Your task to perform on an android device: toggle notification dots Image 0: 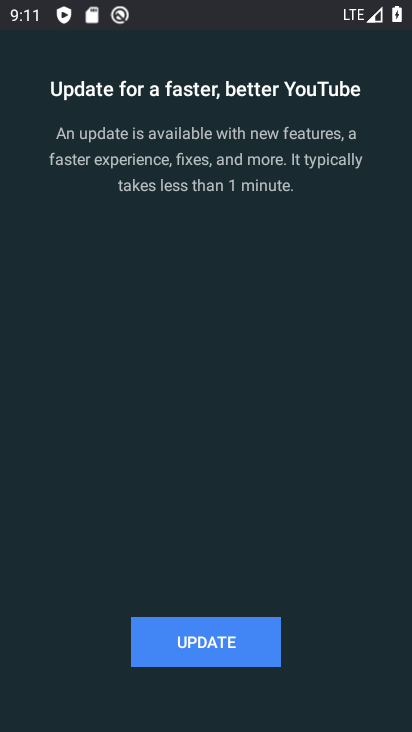
Step 0: press home button
Your task to perform on an android device: toggle notification dots Image 1: 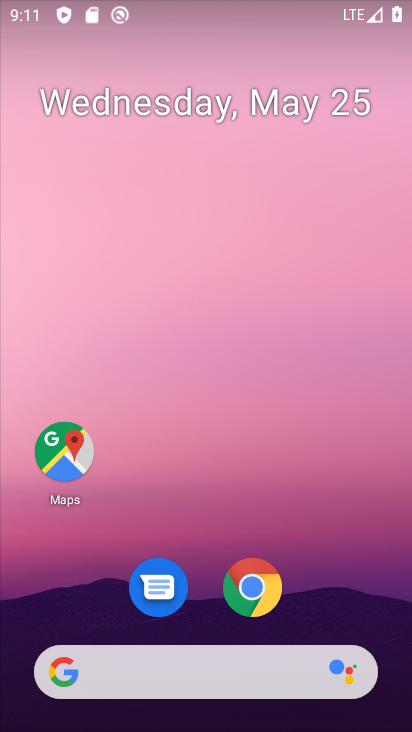
Step 1: drag from (192, 615) to (242, 254)
Your task to perform on an android device: toggle notification dots Image 2: 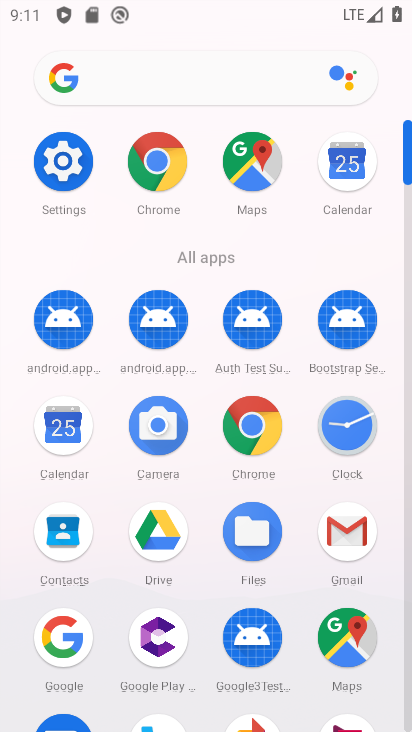
Step 2: click (70, 167)
Your task to perform on an android device: toggle notification dots Image 3: 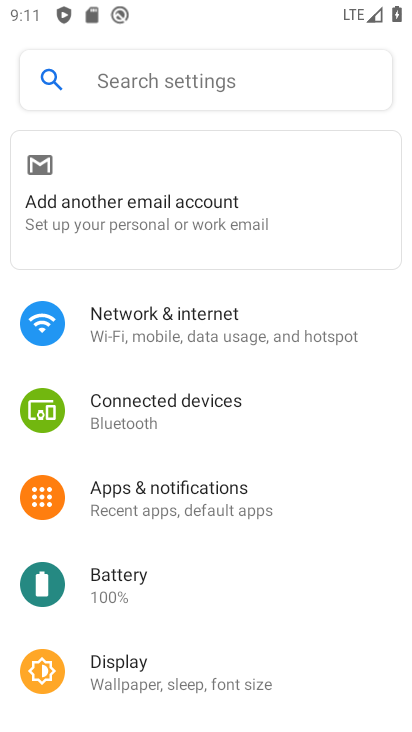
Step 3: click (191, 505)
Your task to perform on an android device: toggle notification dots Image 4: 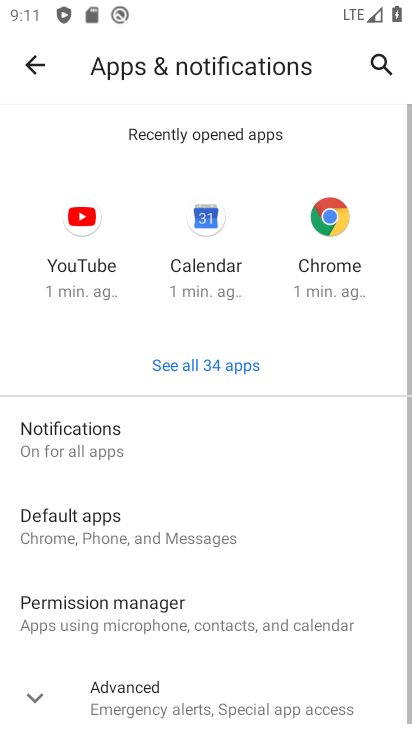
Step 4: drag from (127, 576) to (150, 282)
Your task to perform on an android device: toggle notification dots Image 5: 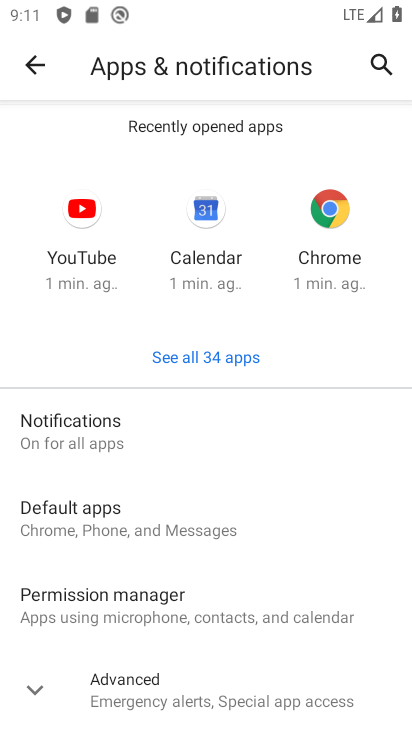
Step 5: drag from (178, 591) to (241, 269)
Your task to perform on an android device: toggle notification dots Image 6: 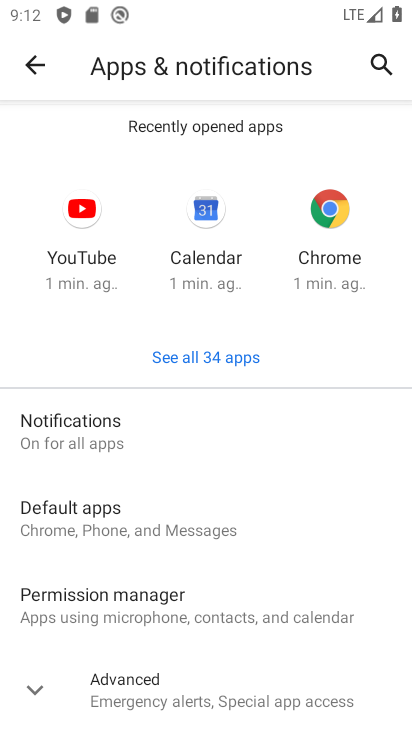
Step 6: click (134, 696)
Your task to perform on an android device: toggle notification dots Image 7: 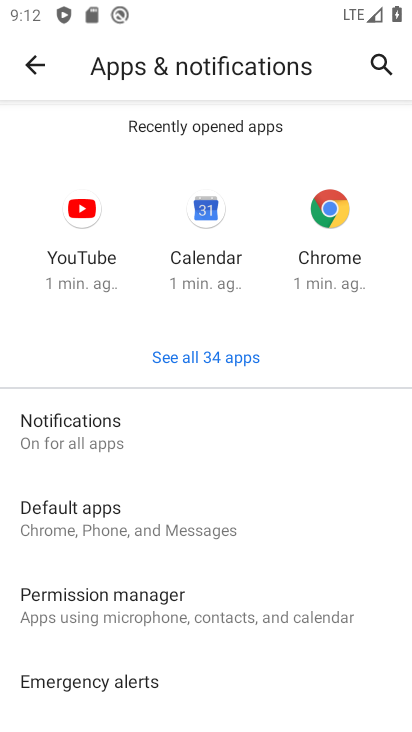
Step 7: drag from (113, 634) to (118, 565)
Your task to perform on an android device: toggle notification dots Image 8: 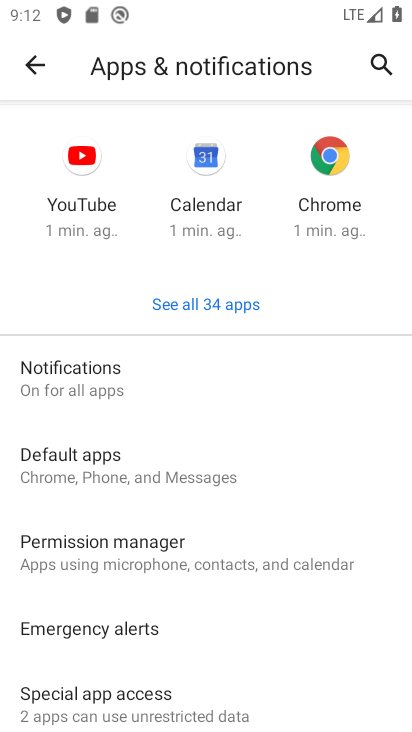
Step 8: drag from (151, 662) to (170, 498)
Your task to perform on an android device: toggle notification dots Image 9: 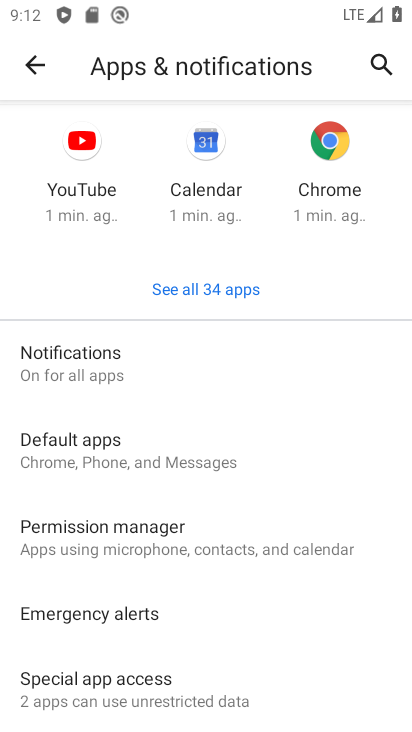
Step 9: click (108, 356)
Your task to perform on an android device: toggle notification dots Image 10: 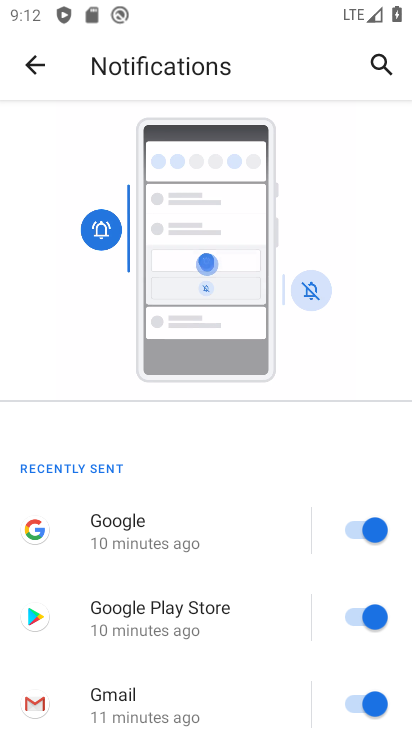
Step 10: drag from (109, 588) to (169, 344)
Your task to perform on an android device: toggle notification dots Image 11: 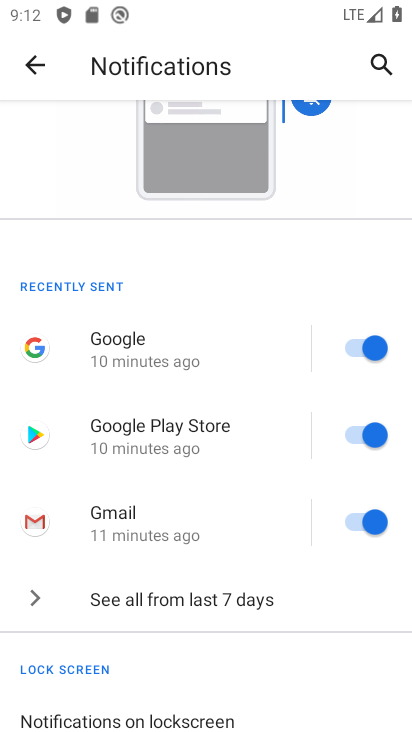
Step 11: drag from (157, 568) to (206, 292)
Your task to perform on an android device: toggle notification dots Image 12: 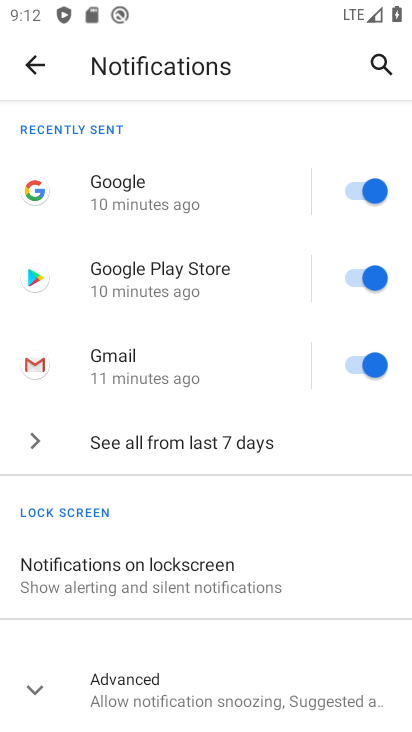
Step 12: click (148, 695)
Your task to perform on an android device: toggle notification dots Image 13: 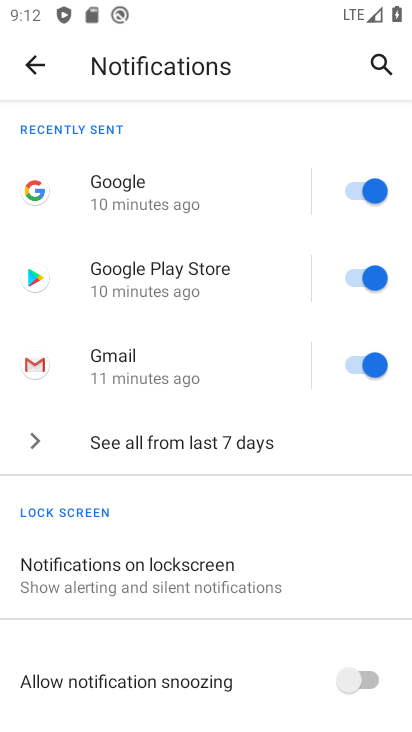
Step 13: drag from (266, 612) to (347, 134)
Your task to perform on an android device: toggle notification dots Image 14: 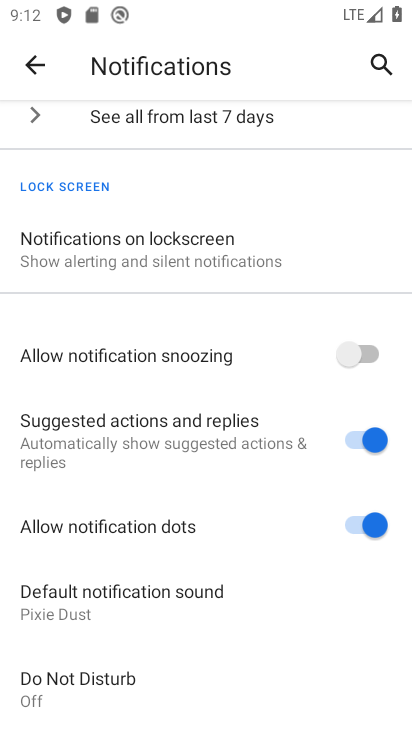
Step 14: click (347, 534)
Your task to perform on an android device: toggle notification dots Image 15: 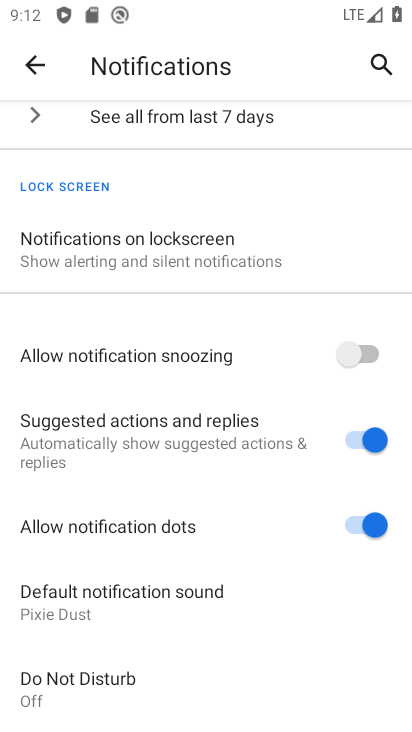
Step 15: click (340, 527)
Your task to perform on an android device: toggle notification dots Image 16: 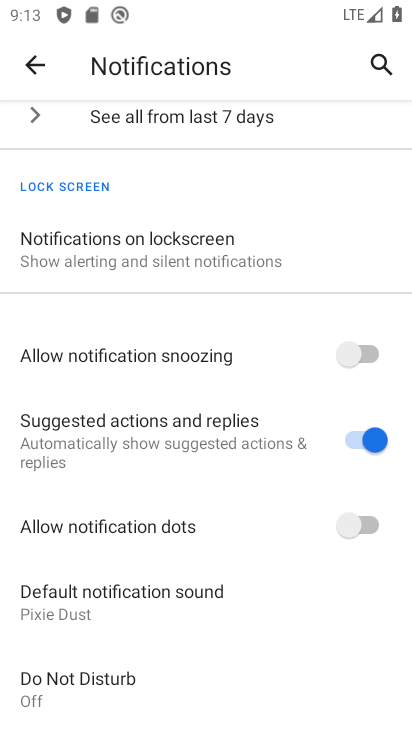
Step 16: task complete